Your task to perform on an android device: change the clock display to show seconds Image 0: 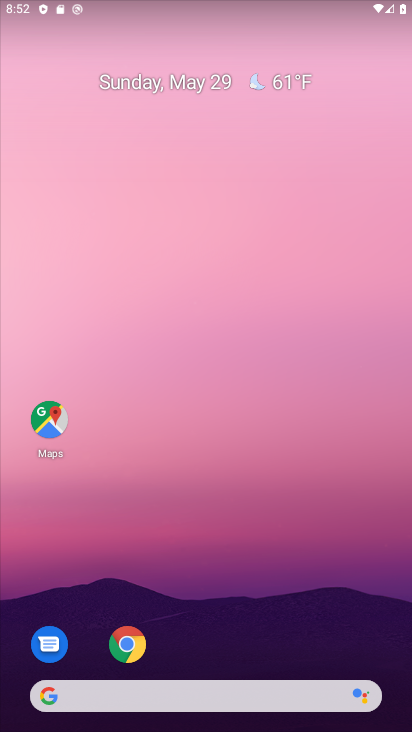
Step 0: drag from (198, 685) to (234, 124)
Your task to perform on an android device: change the clock display to show seconds Image 1: 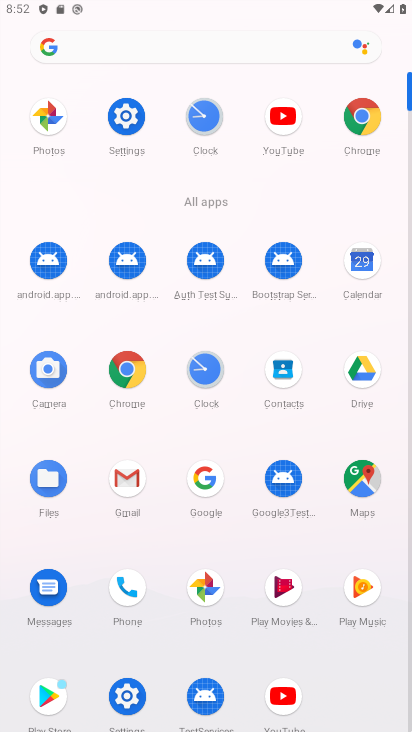
Step 1: click (124, 114)
Your task to perform on an android device: change the clock display to show seconds Image 2: 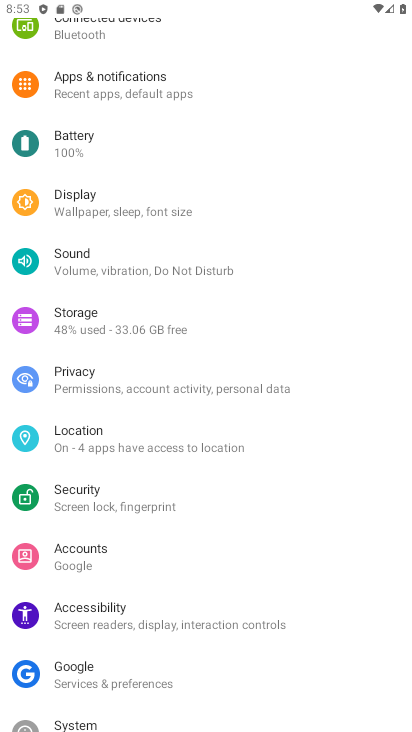
Step 2: press home button
Your task to perform on an android device: change the clock display to show seconds Image 3: 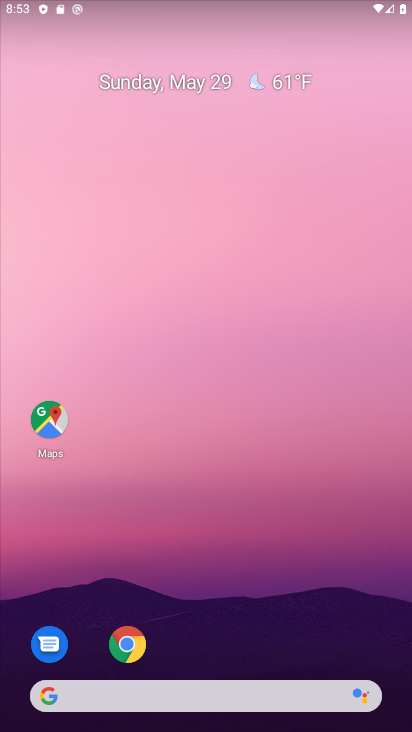
Step 3: drag from (168, 688) to (149, 160)
Your task to perform on an android device: change the clock display to show seconds Image 4: 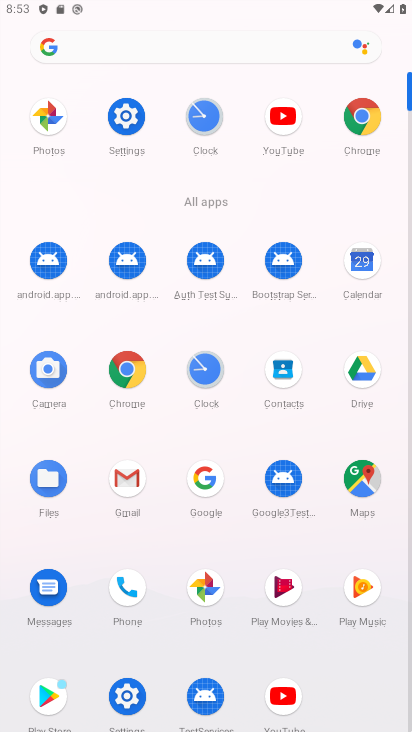
Step 4: click (200, 373)
Your task to perform on an android device: change the clock display to show seconds Image 5: 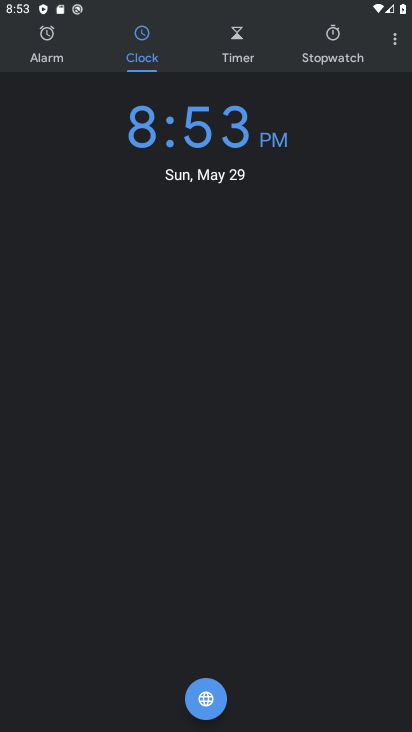
Step 5: click (387, 34)
Your task to perform on an android device: change the clock display to show seconds Image 6: 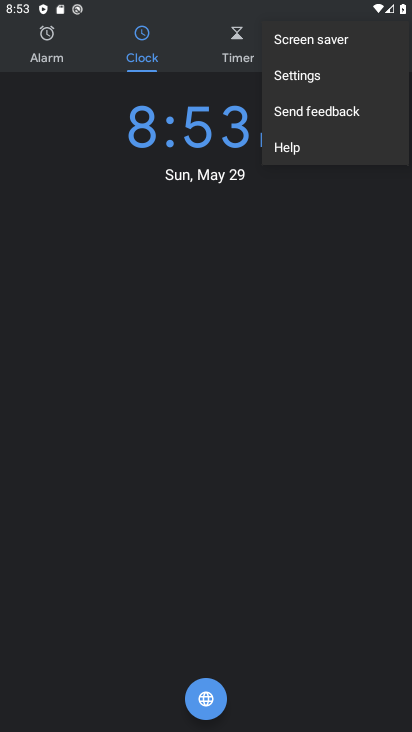
Step 6: click (319, 81)
Your task to perform on an android device: change the clock display to show seconds Image 7: 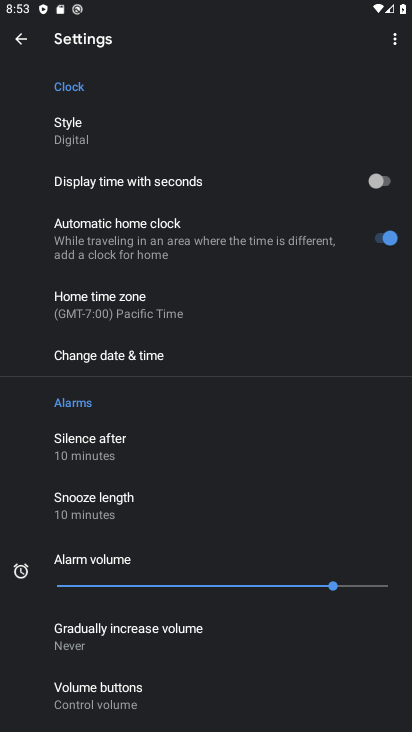
Step 7: click (383, 185)
Your task to perform on an android device: change the clock display to show seconds Image 8: 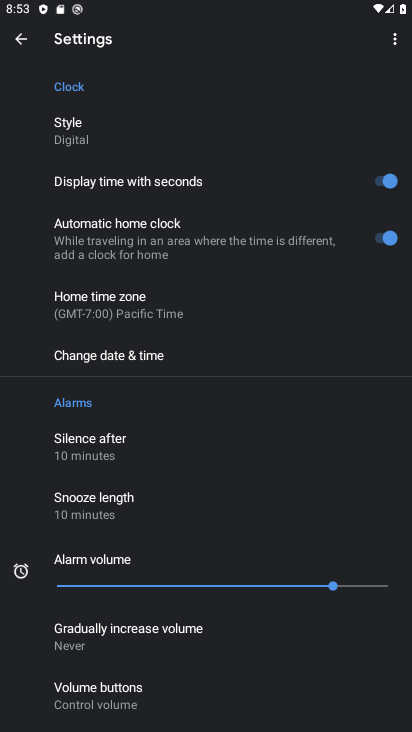
Step 8: task complete